Your task to perform on an android device: stop showing notifications on the lock screen Image 0: 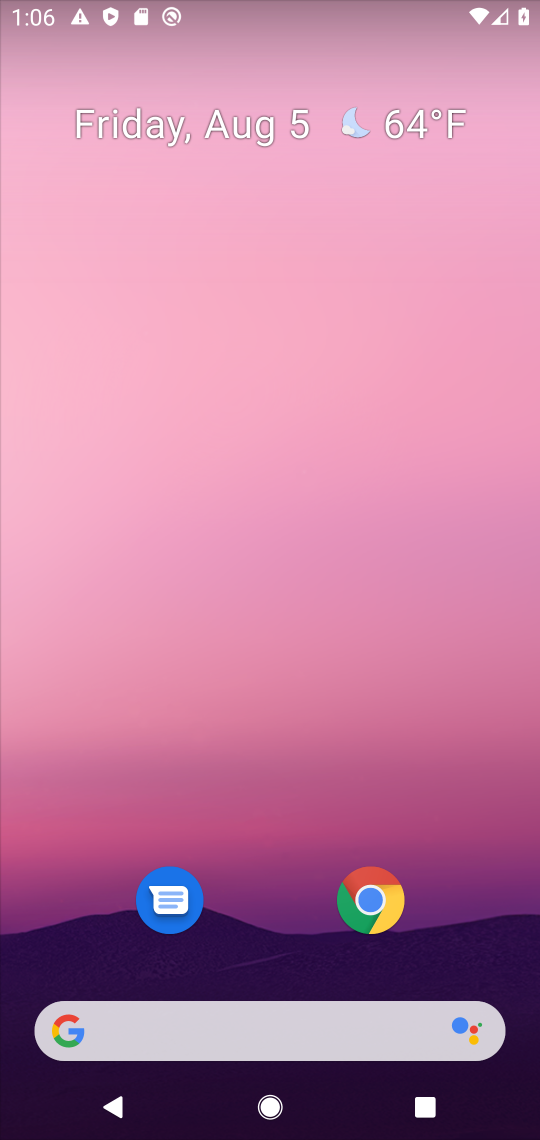
Step 0: press home button
Your task to perform on an android device: stop showing notifications on the lock screen Image 1: 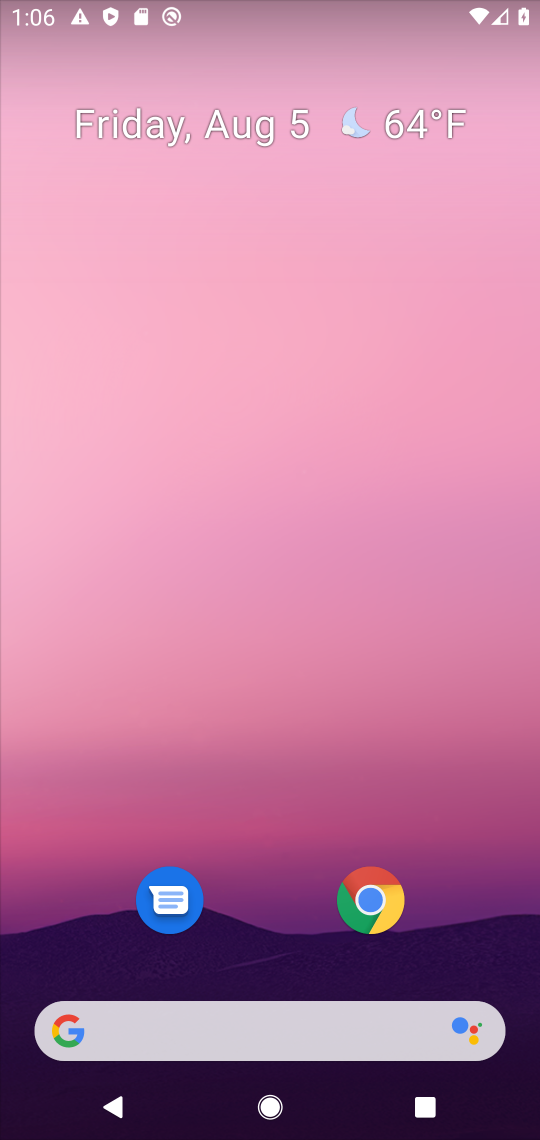
Step 1: drag from (279, 960) to (284, 55)
Your task to perform on an android device: stop showing notifications on the lock screen Image 2: 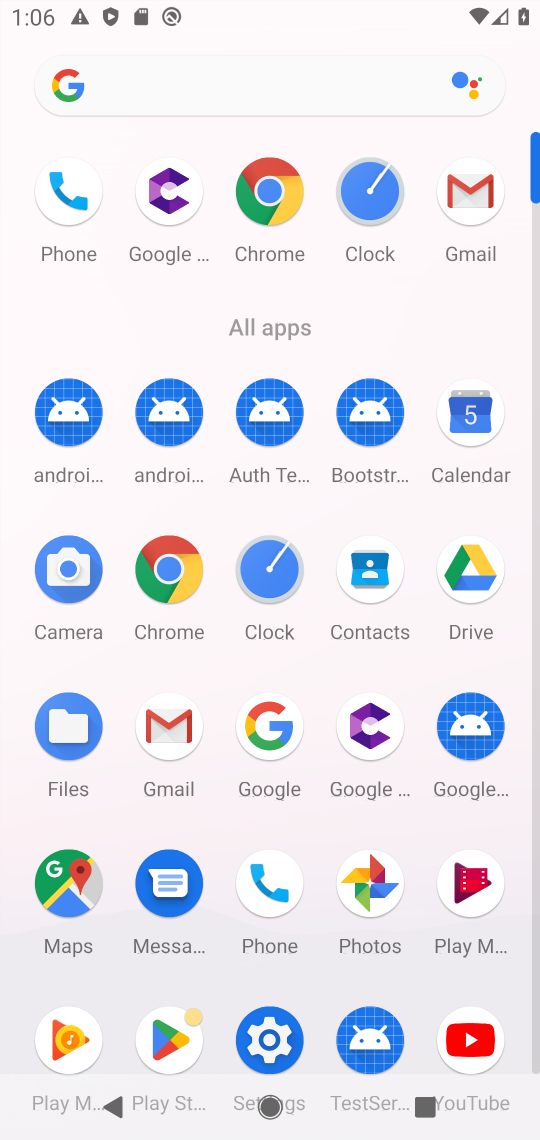
Step 2: click (272, 1025)
Your task to perform on an android device: stop showing notifications on the lock screen Image 3: 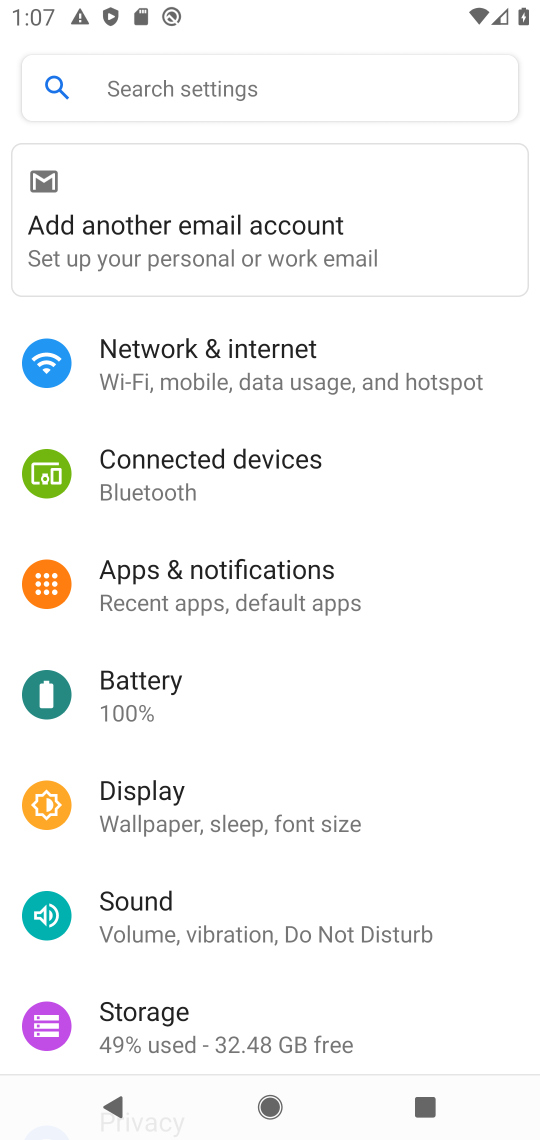
Step 3: click (303, 578)
Your task to perform on an android device: stop showing notifications on the lock screen Image 4: 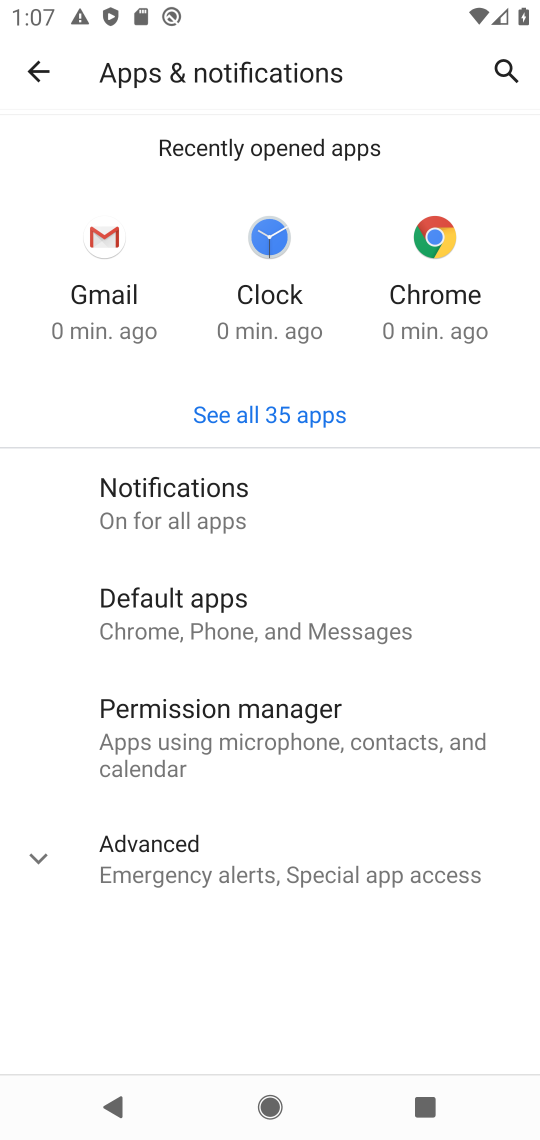
Step 4: click (182, 501)
Your task to perform on an android device: stop showing notifications on the lock screen Image 5: 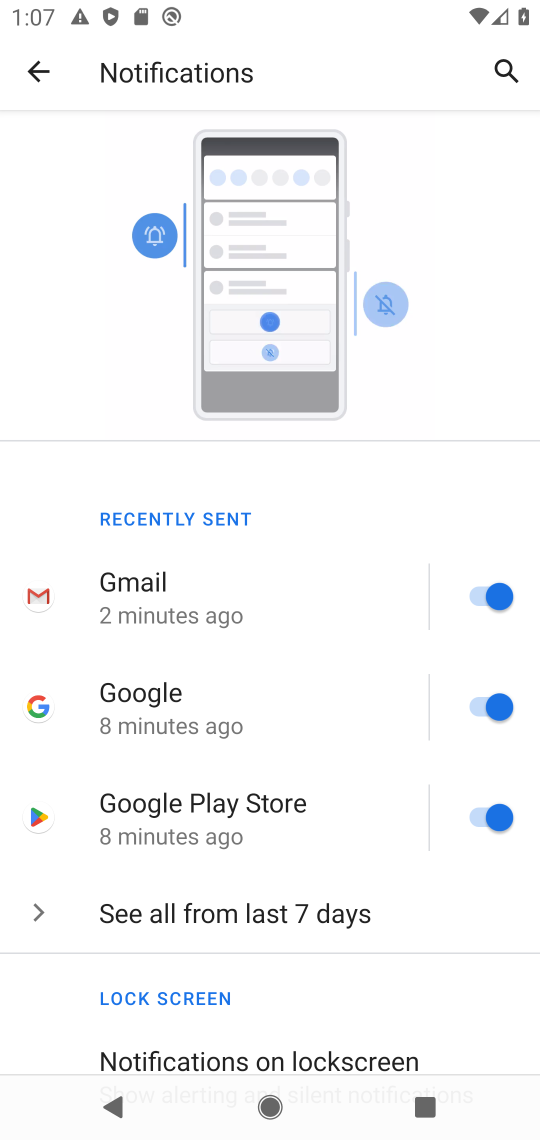
Step 5: drag from (291, 994) to (328, 405)
Your task to perform on an android device: stop showing notifications on the lock screen Image 6: 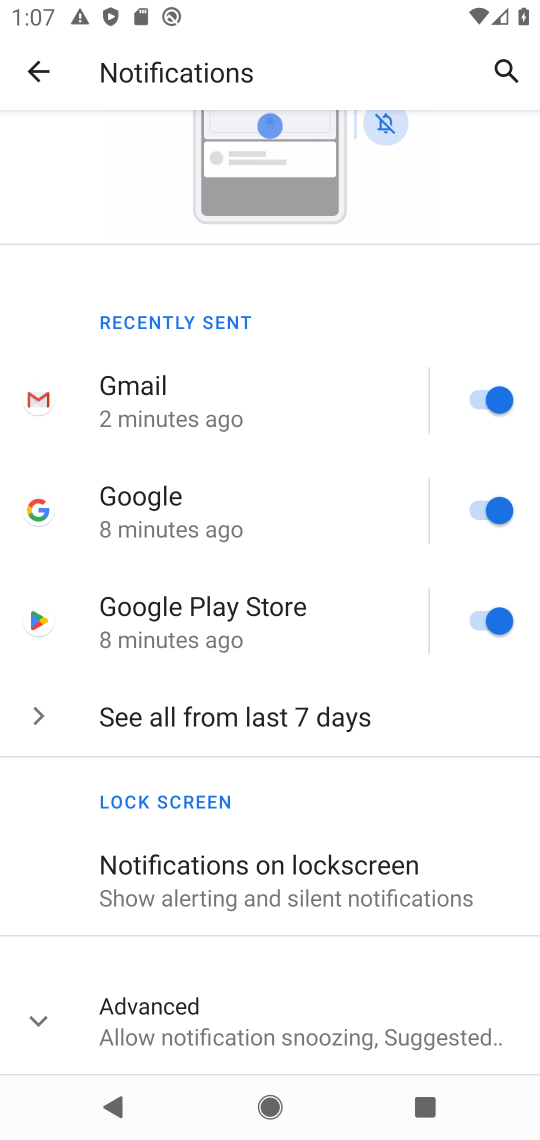
Step 6: click (171, 1004)
Your task to perform on an android device: stop showing notifications on the lock screen Image 7: 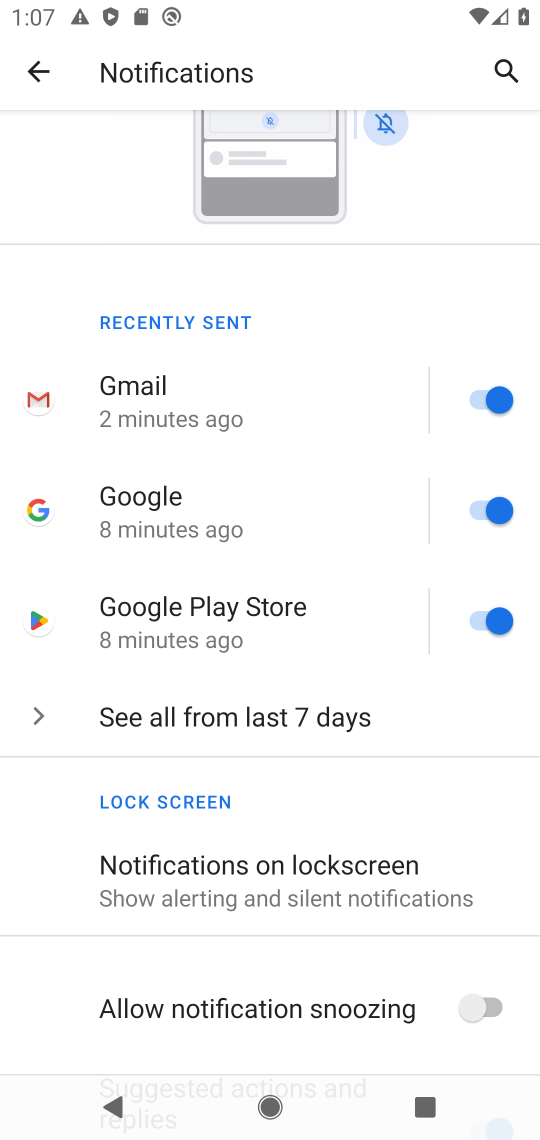
Step 7: drag from (266, 944) to (252, 403)
Your task to perform on an android device: stop showing notifications on the lock screen Image 8: 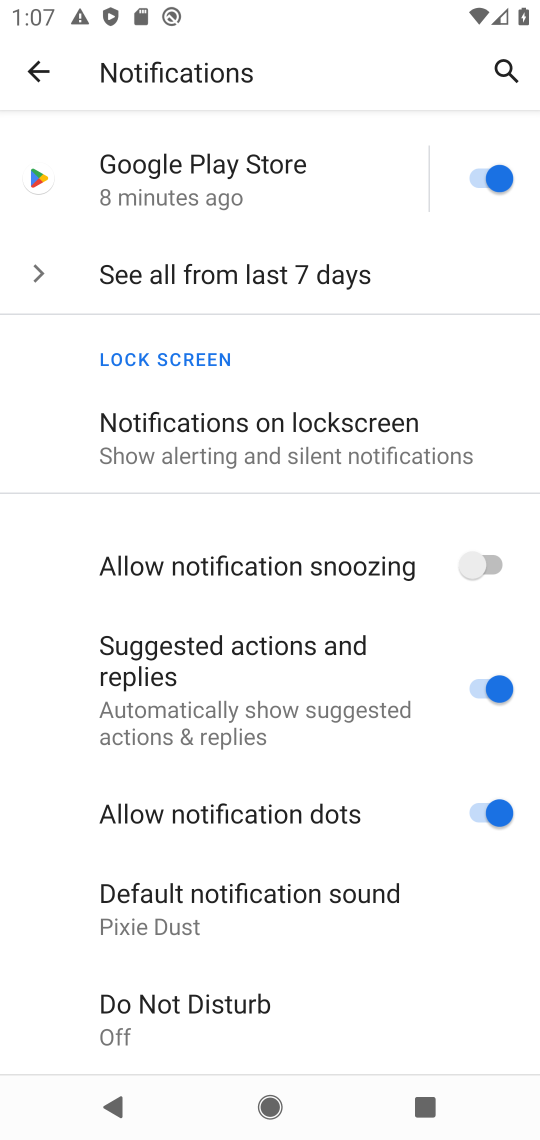
Step 8: click (281, 700)
Your task to perform on an android device: stop showing notifications on the lock screen Image 9: 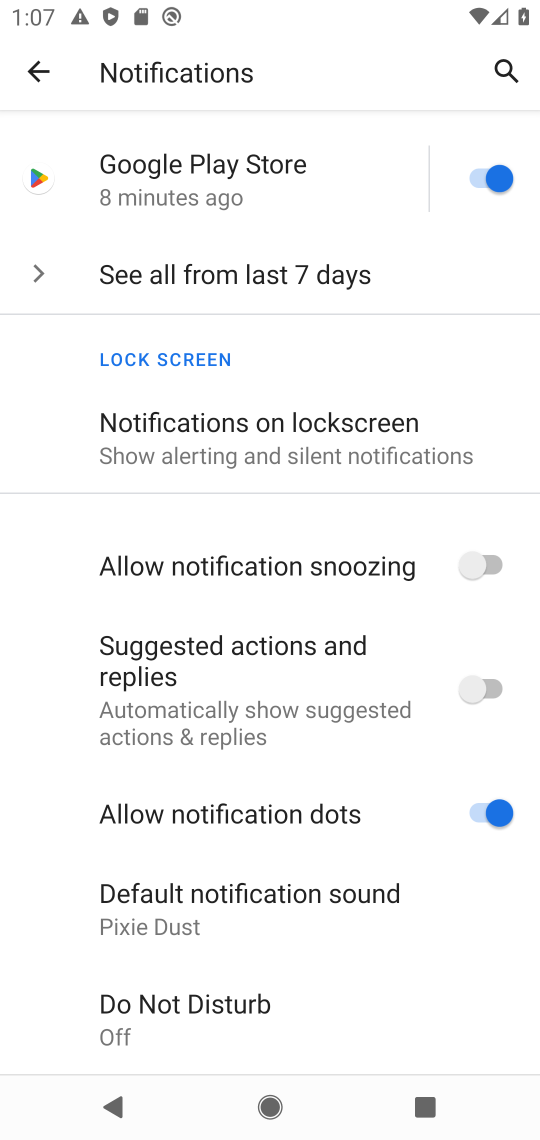
Step 9: click (275, 432)
Your task to perform on an android device: stop showing notifications on the lock screen Image 10: 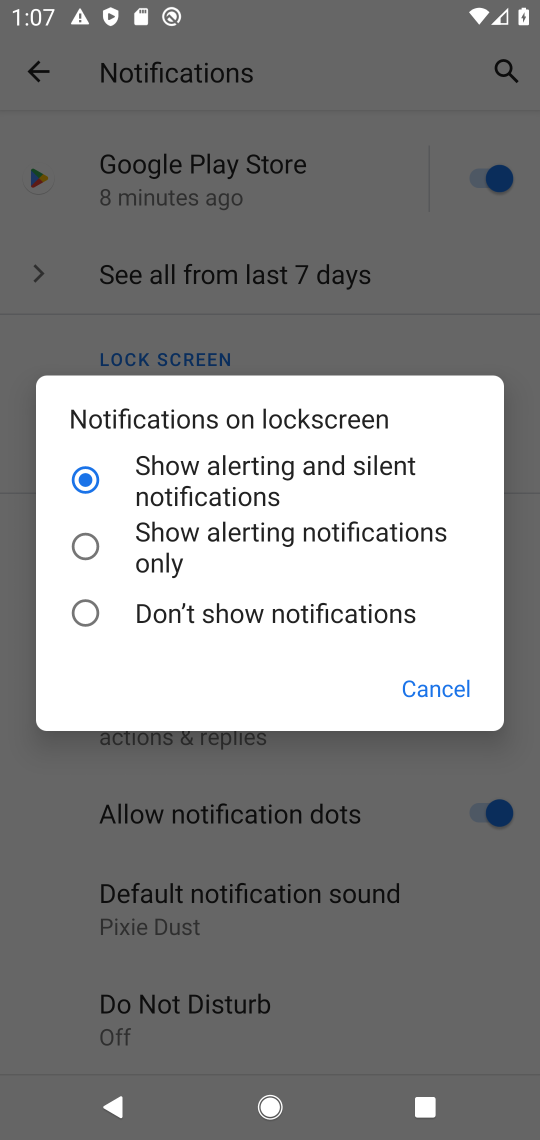
Step 10: click (82, 611)
Your task to perform on an android device: stop showing notifications on the lock screen Image 11: 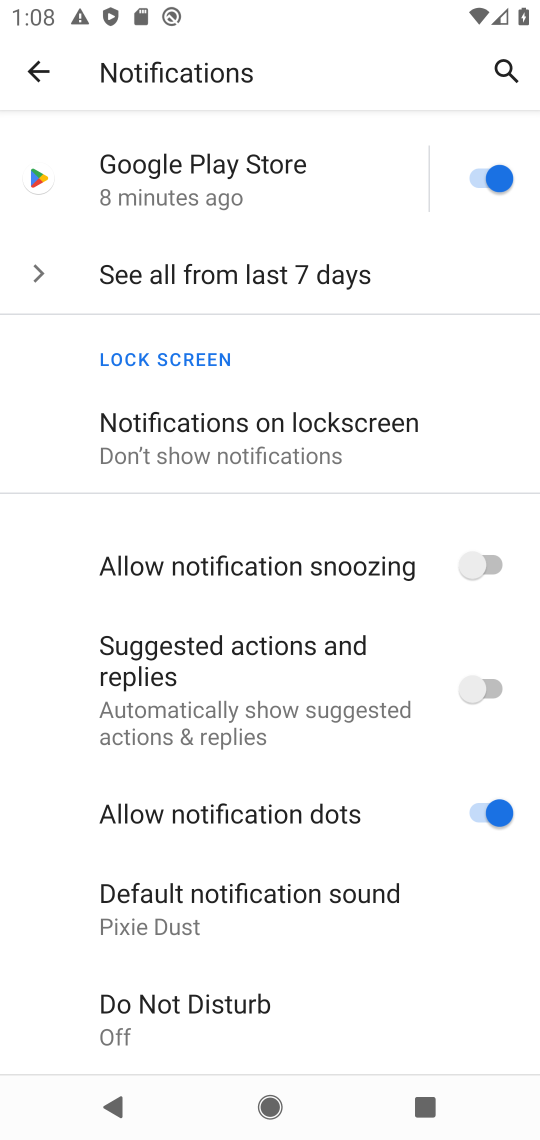
Step 11: task complete